Your task to perform on an android device: set the stopwatch Image 0: 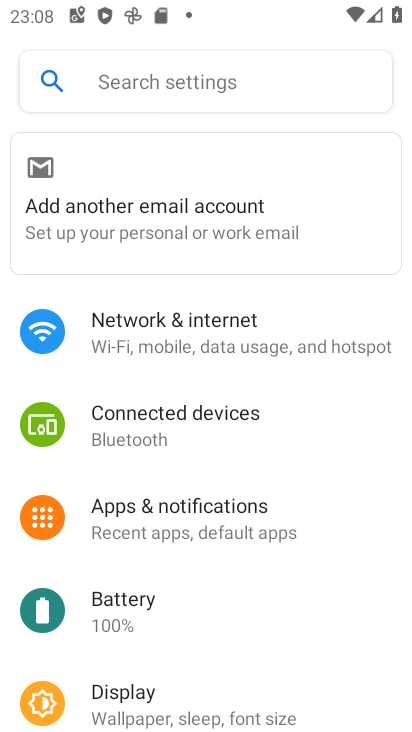
Step 0: drag from (221, 535) to (410, 139)
Your task to perform on an android device: set the stopwatch Image 1: 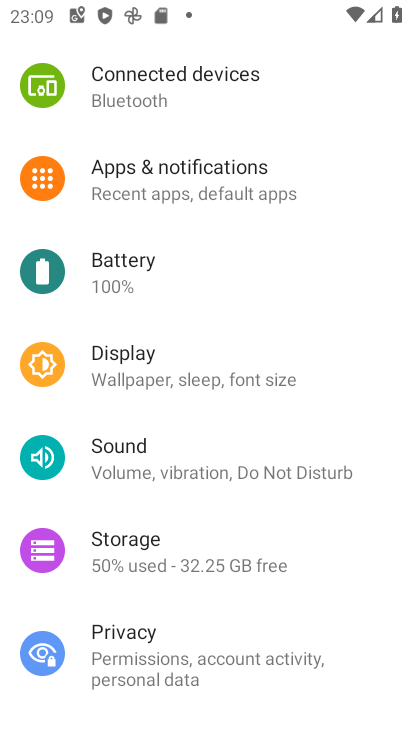
Step 1: drag from (176, 251) to (337, 671)
Your task to perform on an android device: set the stopwatch Image 2: 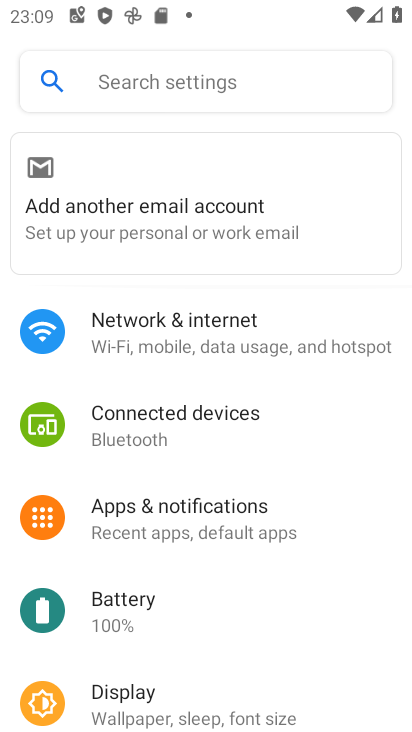
Step 2: press home button
Your task to perform on an android device: set the stopwatch Image 3: 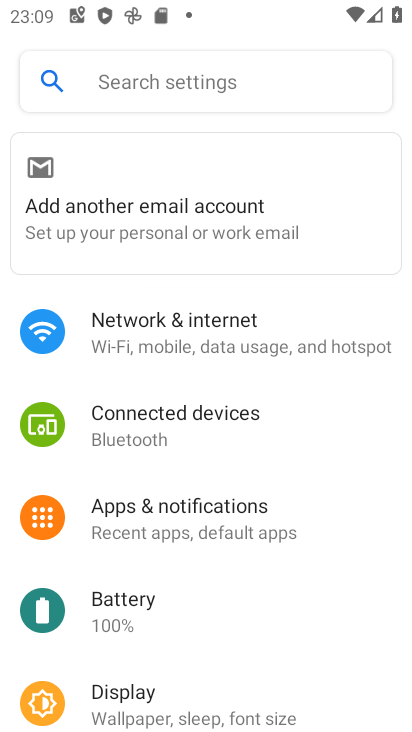
Step 3: click (404, 404)
Your task to perform on an android device: set the stopwatch Image 4: 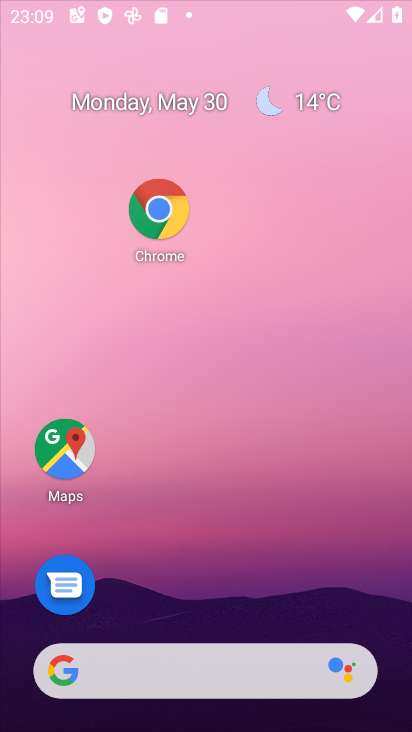
Step 4: drag from (197, 563) to (379, 30)
Your task to perform on an android device: set the stopwatch Image 5: 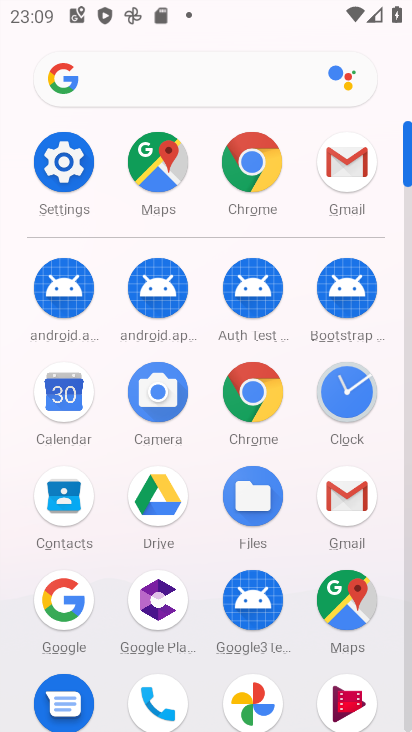
Step 5: click (348, 384)
Your task to perform on an android device: set the stopwatch Image 6: 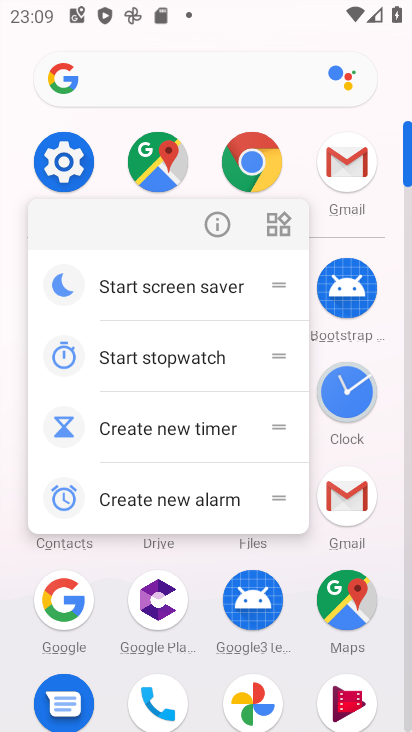
Step 6: click (222, 210)
Your task to perform on an android device: set the stopwatch Image 7: 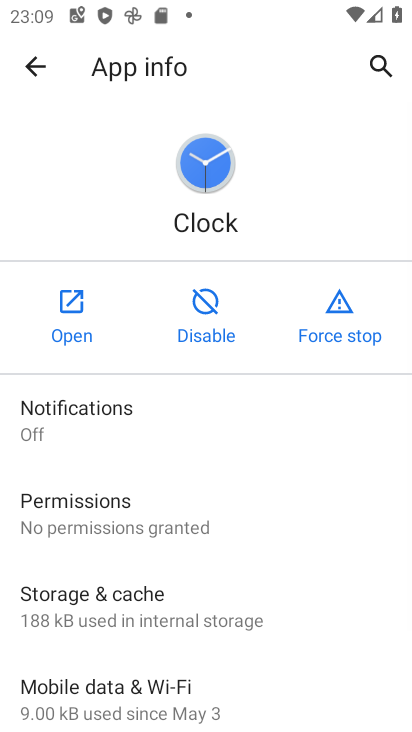
Step 7: click (71, 323)
Your task to perform on an android device: set the stopwatch Image 8: 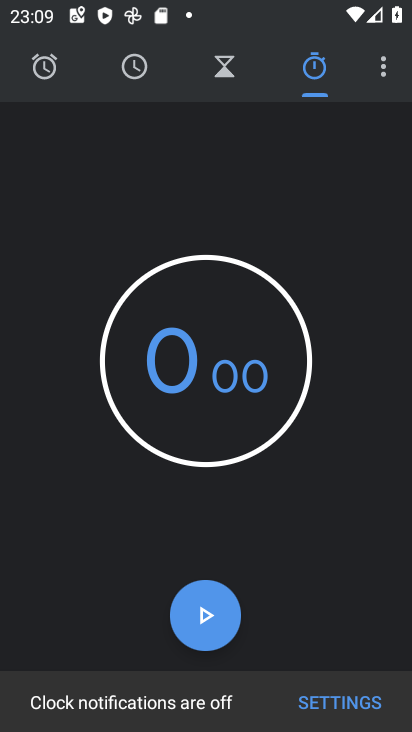
Step 8: click (210, 618)
Your task to perform on an android device: set the stopwatch Image 9: 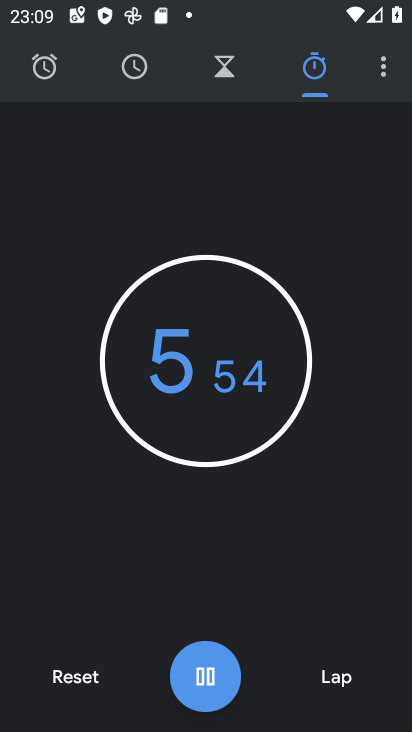
Step 9: task complete